Your task to perform on an android device: Go to notification settings Image 0: 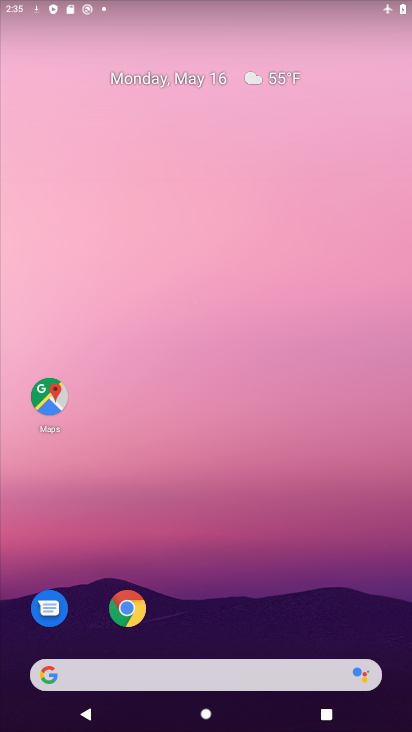
Step 0: drag from (244, 623) to (210, 91)
Your task to perform on an android device: Go to notification settings Image 1: 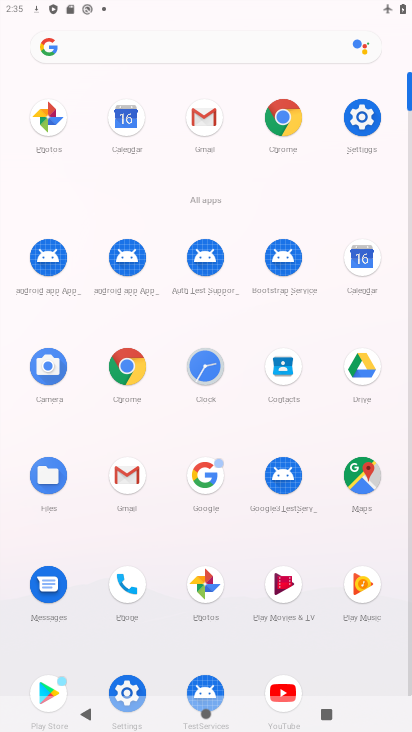
Step 1: click (345, 135)
Your task to perform on an android device: Go to notification settings Image 2: 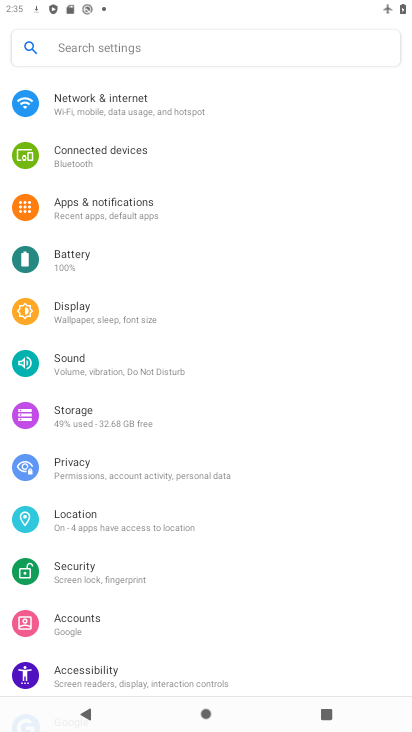
Step 2: click (111, 217)
Your task to perform on an android device: Go to notification settings Image 3: 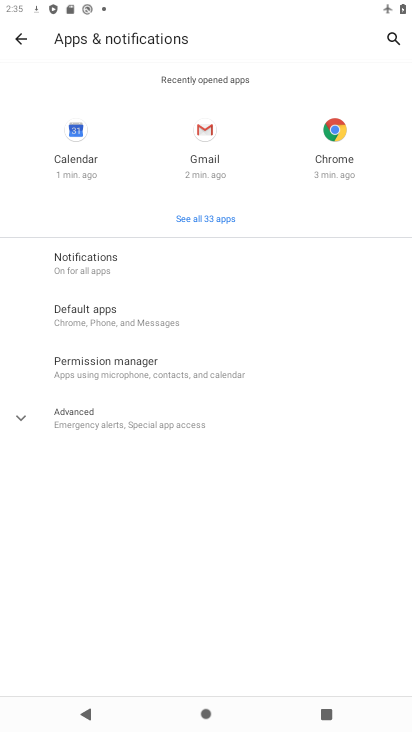
Step 3: click (169, 265)
Your task to perform on an android device: Go to notification settings Image 4: 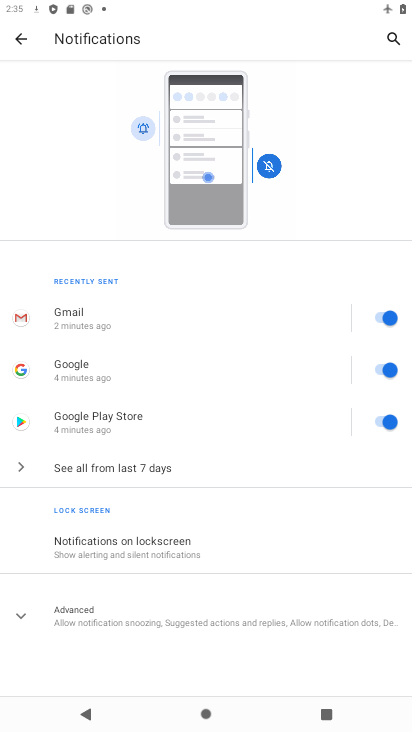
Step 4: task complete